Your task to perform on an android device: Open Android settings Image 0: 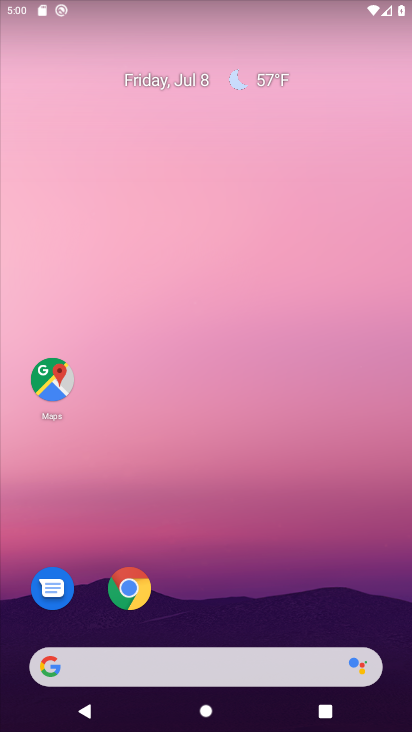
Step 0: drag from (257, 704) to (131, 114)
Your task to perform on an android device: Open Android settings Image 1: 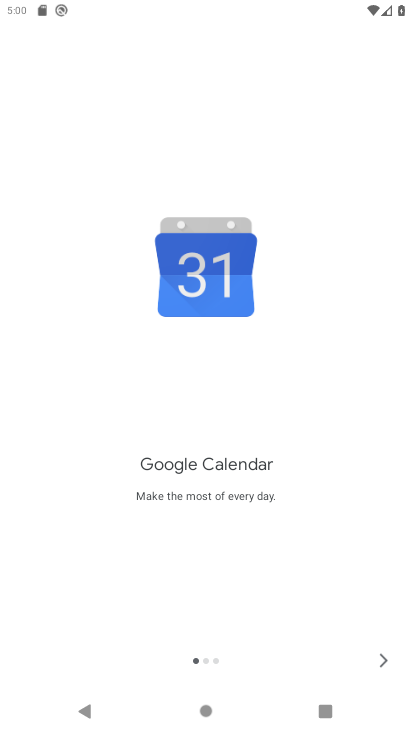
Step 1: click (380, 654)
Your task to perform on an android device: Open Android settings Image 2: 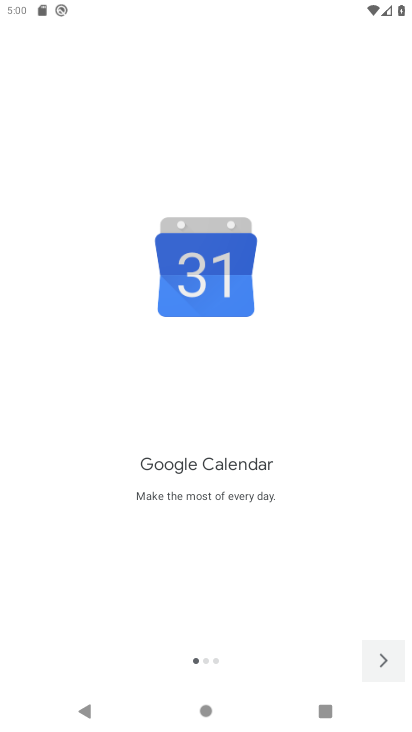
Step 2: click (380, 654)
Your task to perform on an android device: Open Android settings Image 3: 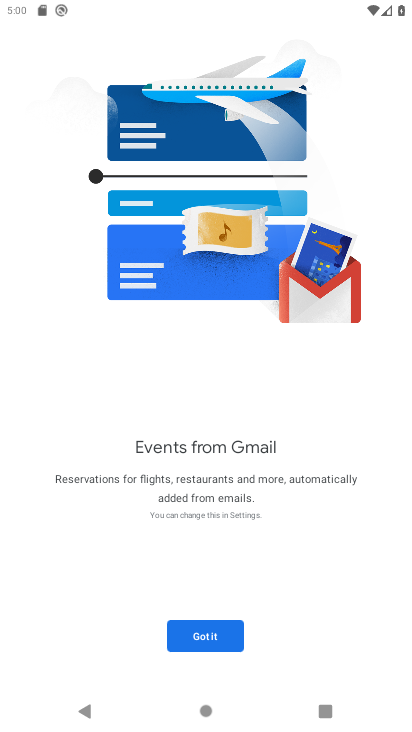
Step 3: click (200, 634)
Your task to perform on an android device: Open Android settings Image 4: 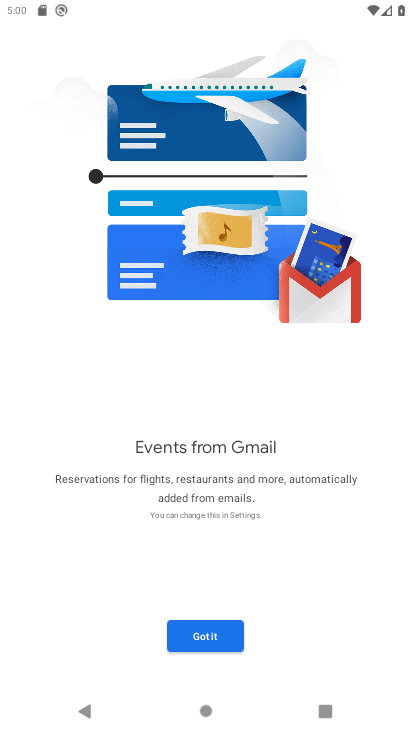
Step 4: click (203, 634)
Your task to perform on an android device: Open Android settings Image 5: 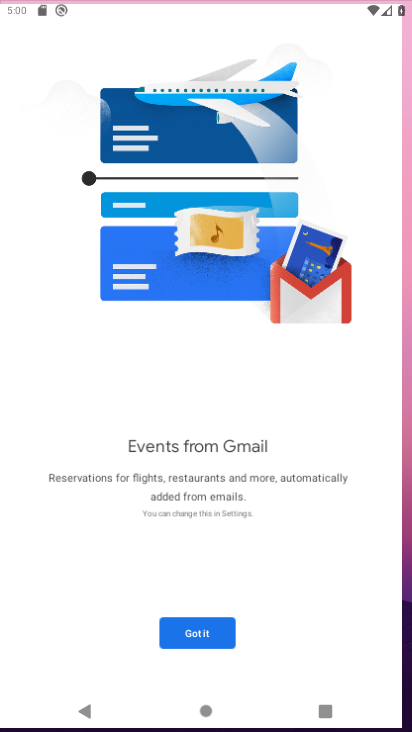
Step 5: click (205, 635)
Your task to perform on an android device: Open Android settings Image 6: 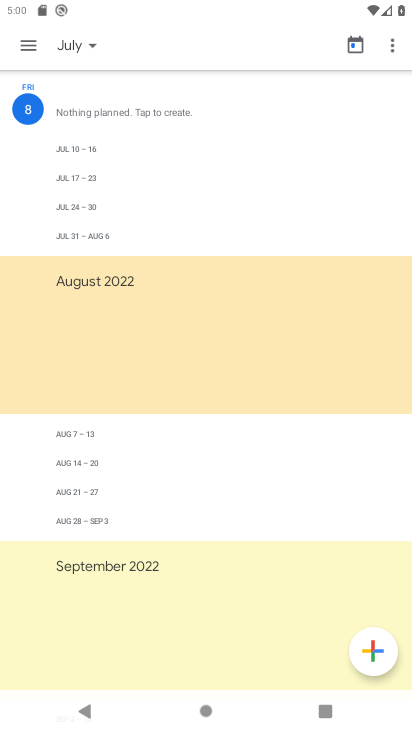
Step 6: press back button
Your task to perform on an android device: Open Android settings Image 7: 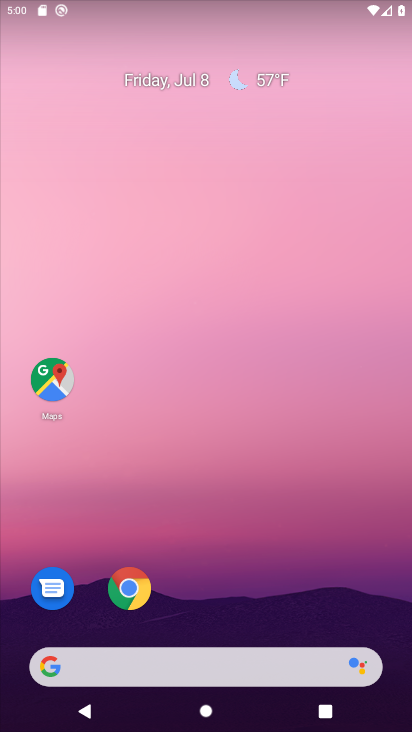
Step 7: drag from (246, 637) to (178, 47)
Your task to perform on an android device: Open Android settings Image 8: 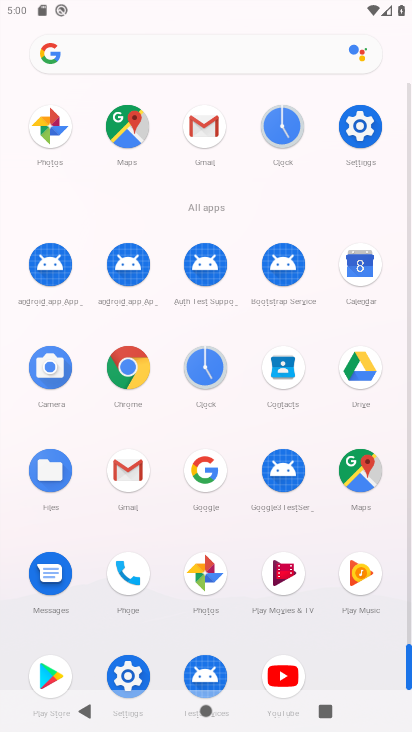
Step 8: click (353, 132)
Your task to perform on an android device: Open Android settings Image 9: 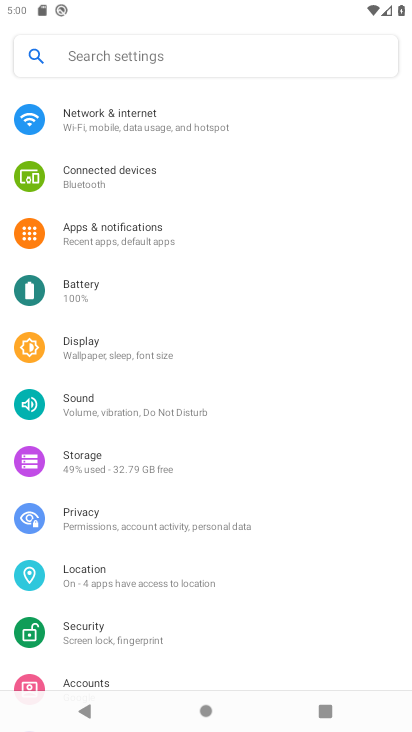
Step 9: drag from (157, 606) to (119, 201)
Your task to perform on an android device: Open Android settings Image 10: 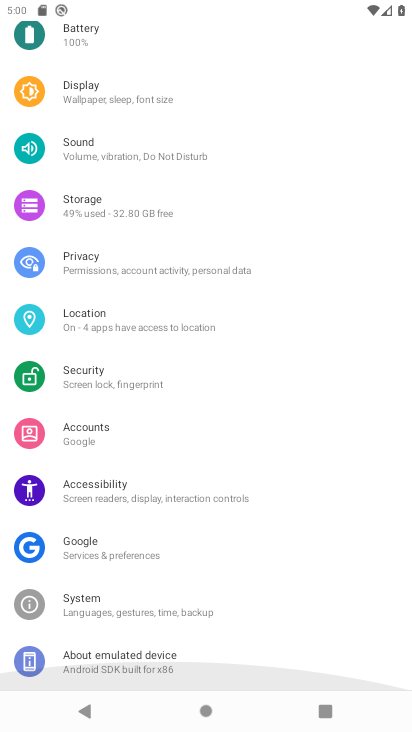
Step 10: drag from (155, 410) to (132, 201)
Your task to perform on an android device: Open Android settings Image 11: 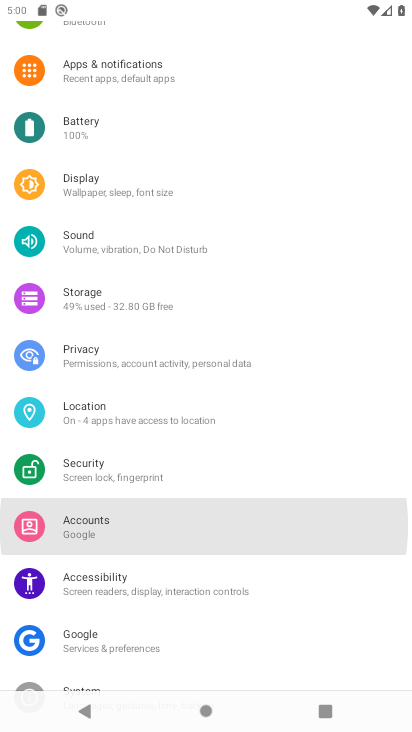
Step 11: drag from (120, 354) to (105, 302)
Your task to perform on an android device: Open Android settings Image 12: 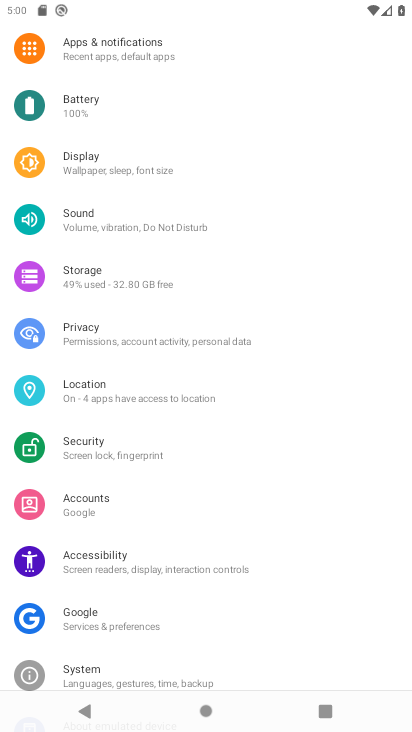
Step 12: drag from (95, 423) to (69, 171)
Your task to perform on an android device: Open Android settings Image 13: 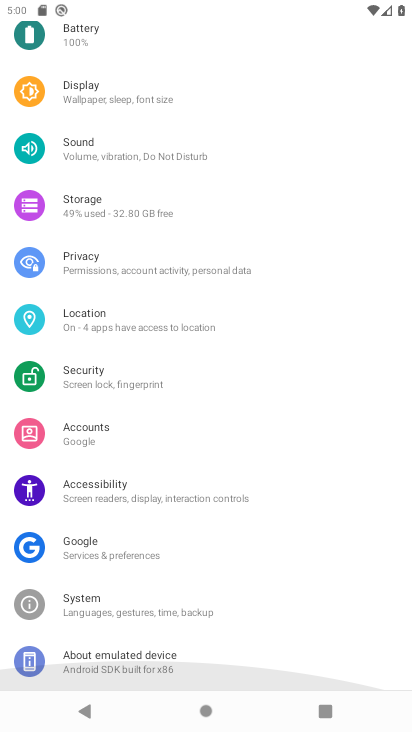
Step 13: drag from (140, 348) to (108, 65)
Your task to perform on an android device: Open Android settings Image 14: 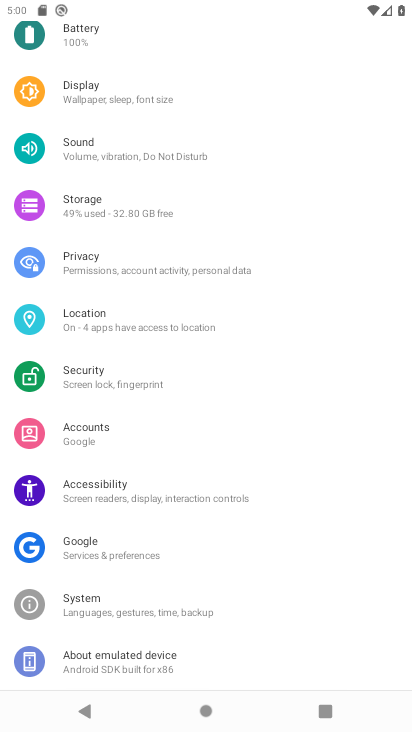
Step 14: drag from (219, 458) to (198, 148)
Your task to perform on an android device: Open Android settings Image 15: 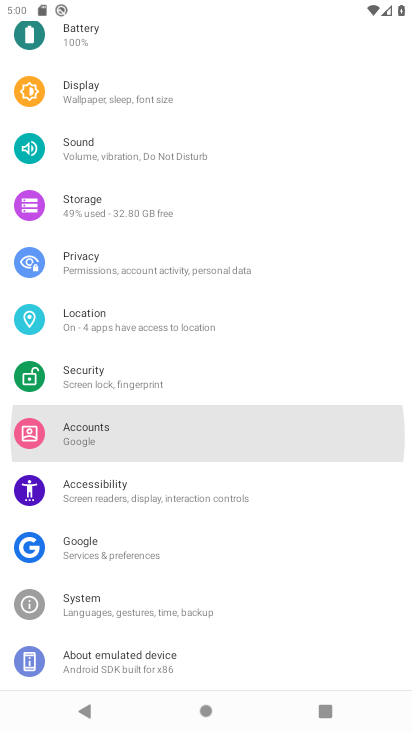
Step 15: drag from (164, 544) to (68, 170)
Your task to perform on an android device: Open Android settings Image 16: 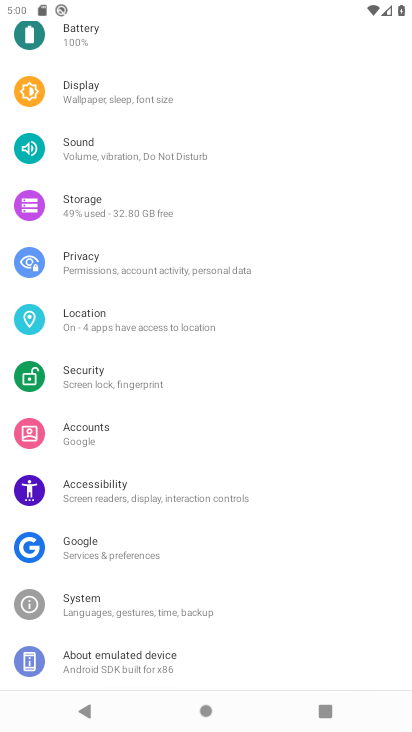
Step 16: click (110, 663)
Your task to perform on an android device: Open Android settings Image 17: 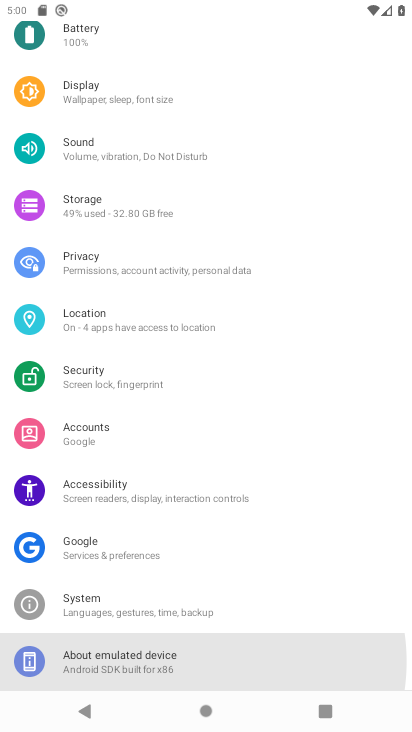
Step 17: click (110, 663)
Your task to perform on an android device: Open Android settings Image 18: 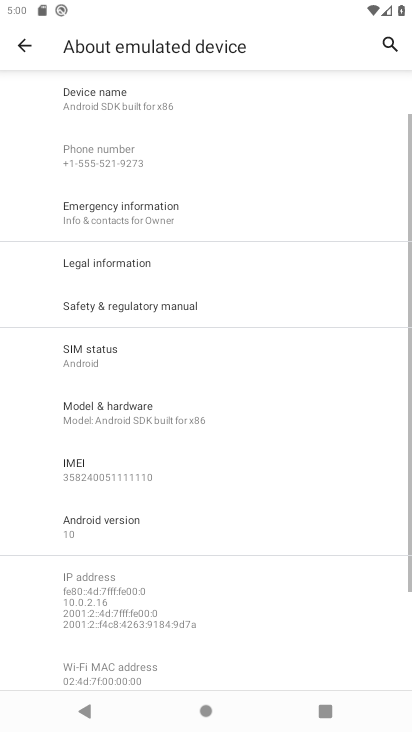
Step 18: click (107, 665)
Your task to perform on an android device: Open Android settings Image 19: 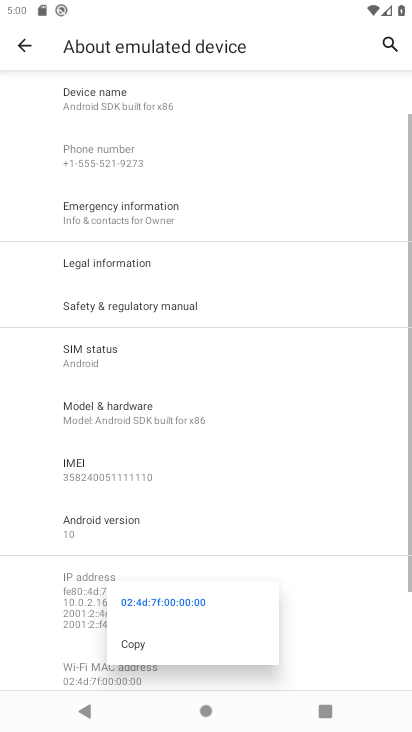
Step 19: task complete